Your task to perform on an android device: allow cookies in the chrome app Image 0: 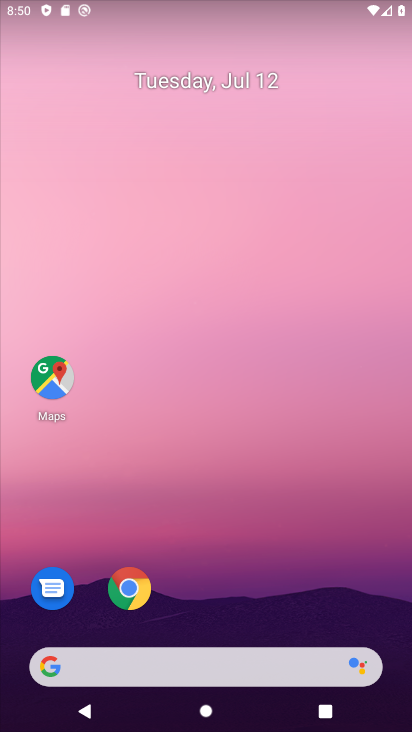
Step 0: click (133, 586)
Your task to perform on an android device: allow cookies in the chrome app Image 1: 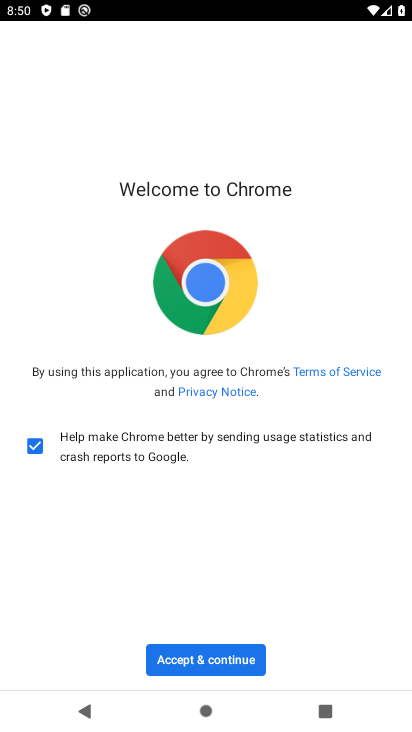
Step 1: click (206, 660)
Your task to perform on an android device: allow cookies in the chrome app Image 2: 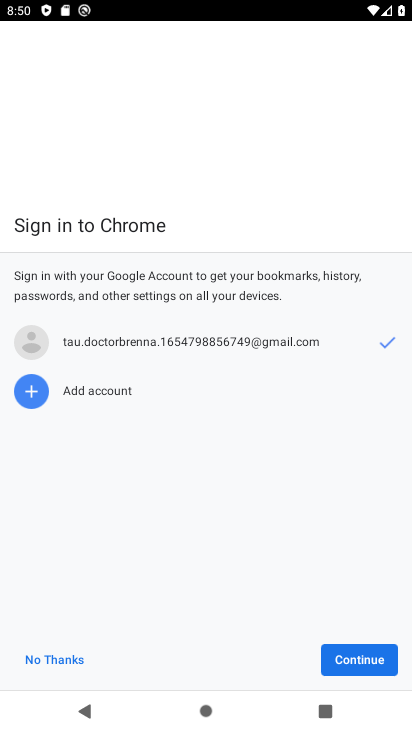
Step 2: click (376, 660)
Your task to perform on an android device: allow cookies in the chrome app Image 3: 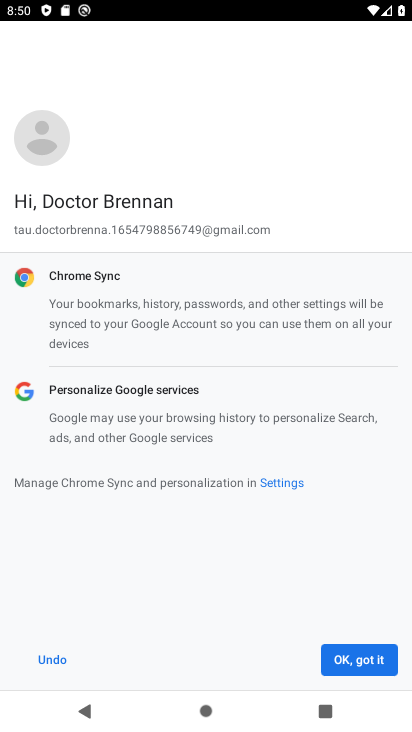
Step 3: click (384, 649)
Your task to perform on an android device: allow cookies in the chrome app Image 4: 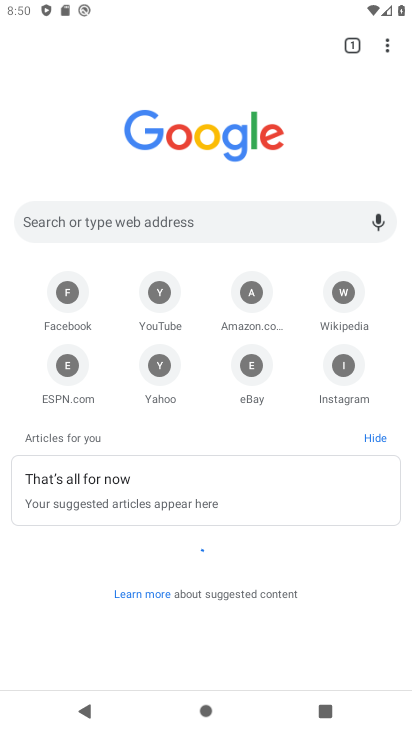
Step 4: drag from (384, 42) to (260, 389)
Your task to perform on an android device: allow cookies in the chrome app Image 5: 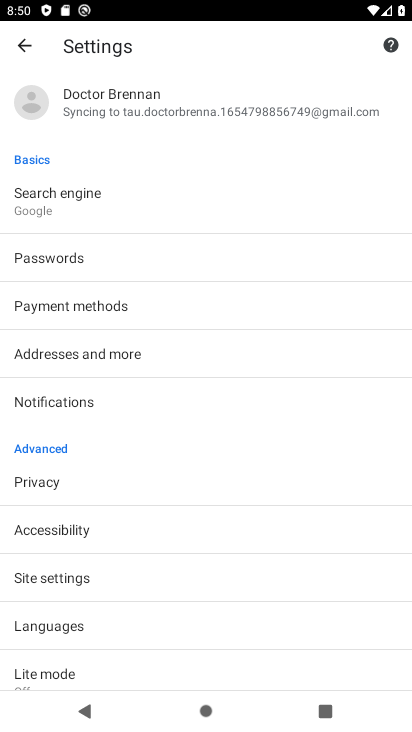
Step 5: click (122, 587)
Your task to perform on an android device: allow cookies in the chrome app Image 6: 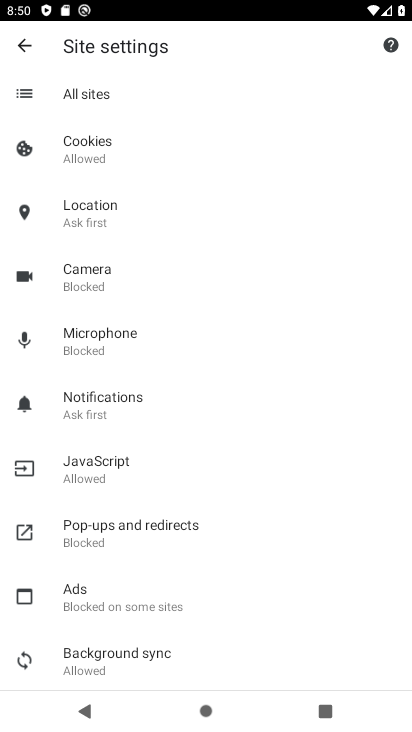
Step 6: click (140, 143)
Your task to perform on an android device: allow cookies in the chrome app Image 7: 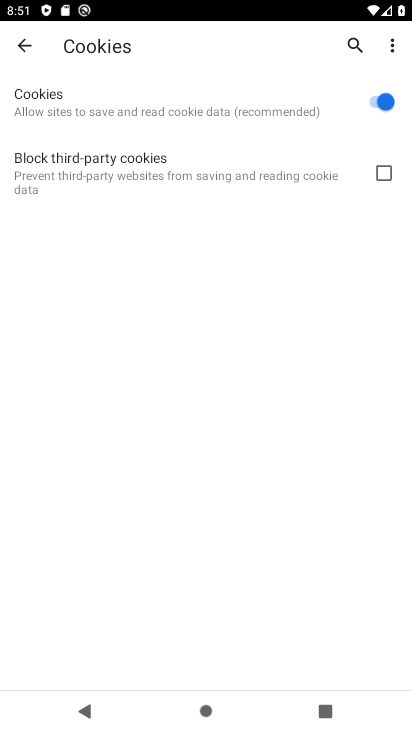
Step 7: task complete